Your task to perform on an android device: change the upload size in google photos Image 0: 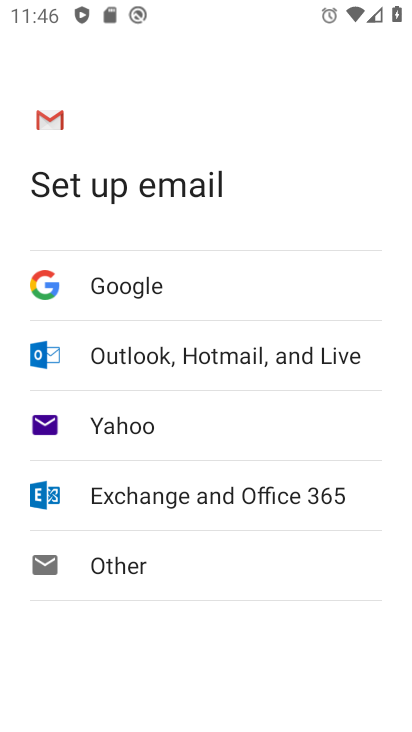
Step 0: press home button
Your task to perform on an android device: change the upload size in google photos Image 1: 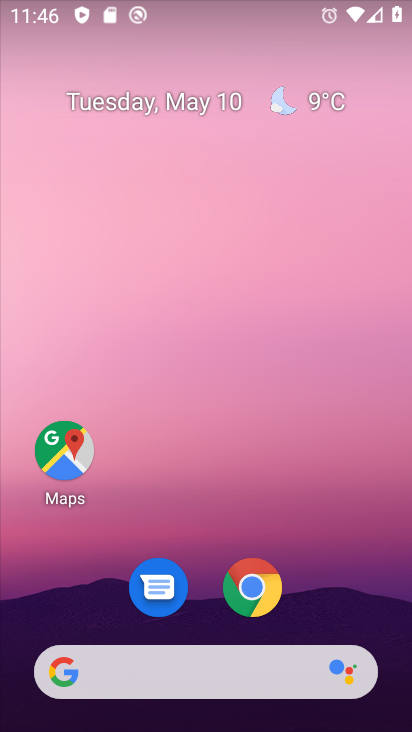
Step 1: drag from (344, 625) to (357, 8)
Your task to perform on an android device: change the upload size in google photos Image 2: 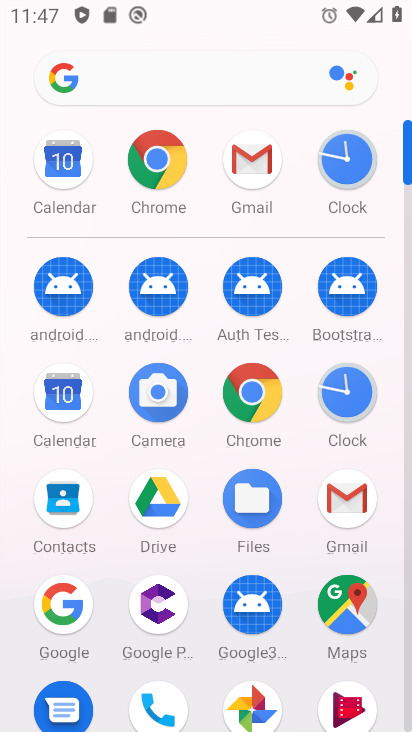
Step 2: click (253, 702)
Your task to perform on an android device: change the upload size in google photos Image 3: 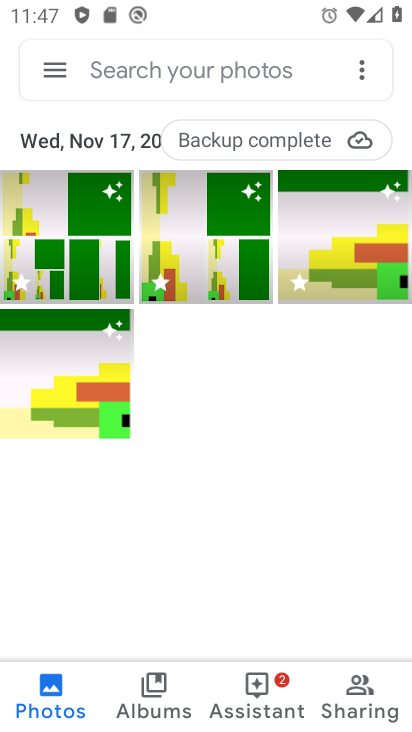
Step 3: click (48, 71)
Your task to perform on an android device: change the upload size in google photos Image 4: 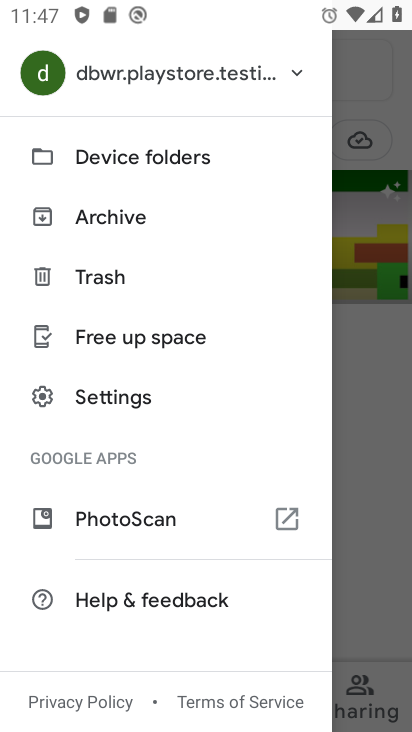
Step 4: click (125, 400)
Your task to perform on an android device: change the upload size in google photos Image 5: 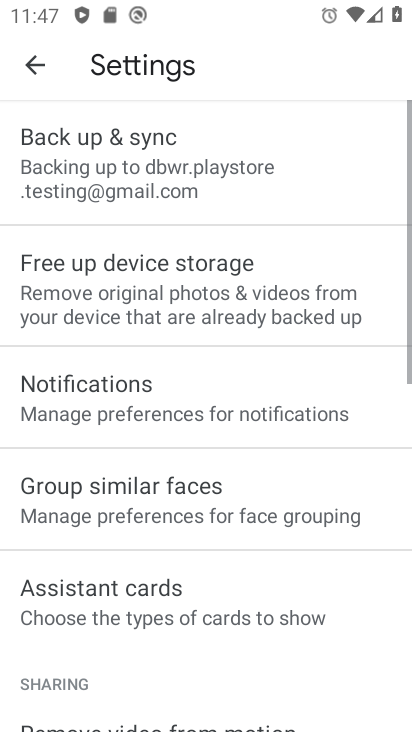
Step 5: click (116, 174)
Your task to perform on an android device: change the upload size in google photos Image 6: 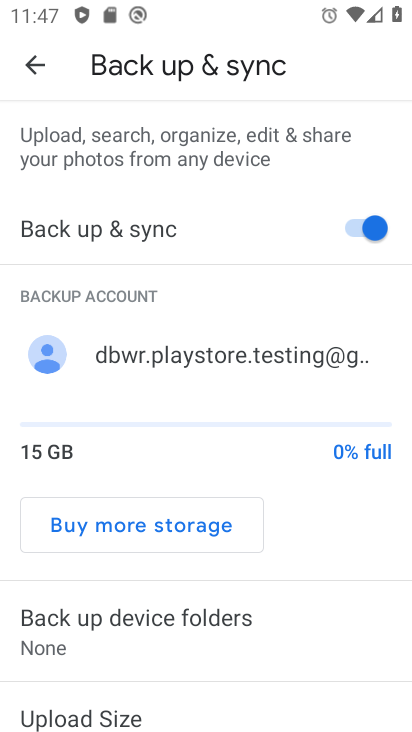
Step 6: drag from (128, 390) to (115, 158)
Your task to perform on an android device: change the upload size in google photos Image 7: 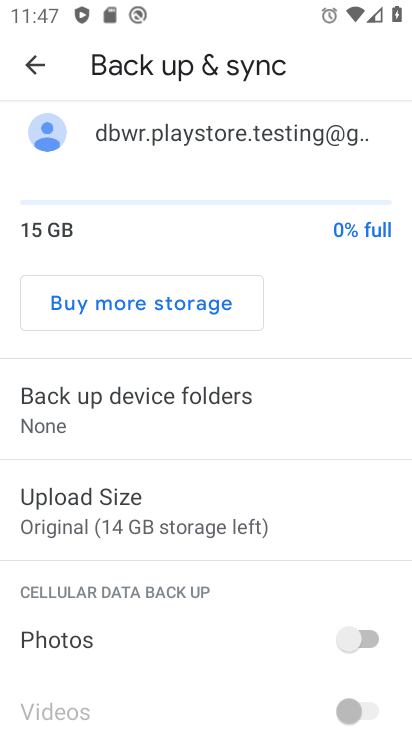
Step 7: click (113, 511)
Your task to perform on an android device: change the upload size in google photos Image 8: 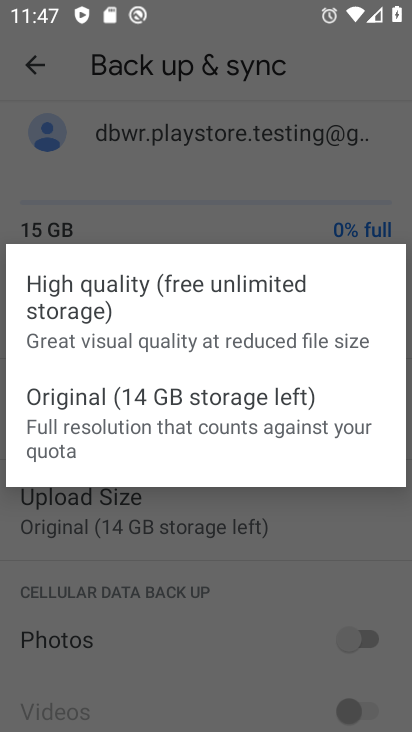
Step 8: click (83, 343)
Your task to perform on an android device: change the upload size in google photos Image 9: 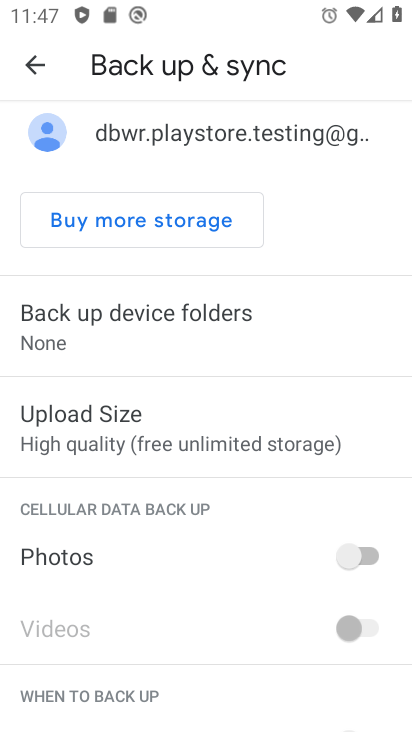
Step 9: task complete